Your task to perform on an android device: Open calendar and show me the second week of next month Image 0: 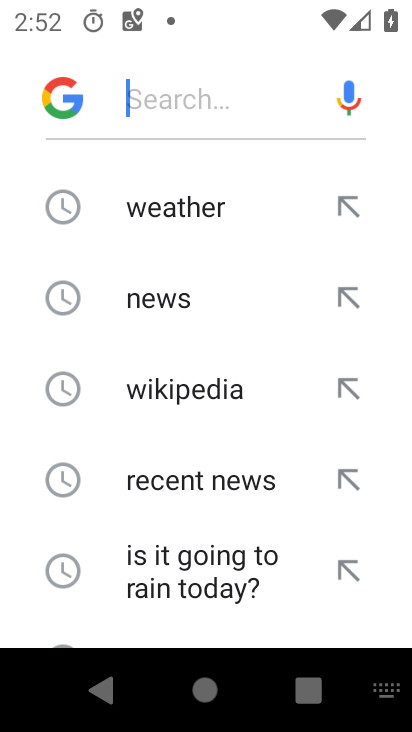
Step 0: press home button
Your task to perform on an android device: Open calendar and show me the second week of next month Image 1: 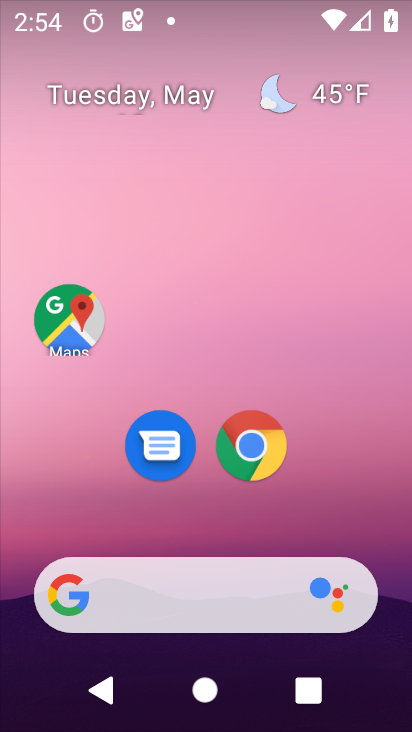
Step 1: drag from (224, 342) to (320, 13)
Your task to perform on an android device: Open calendar and show me the second week of next month Image 2: 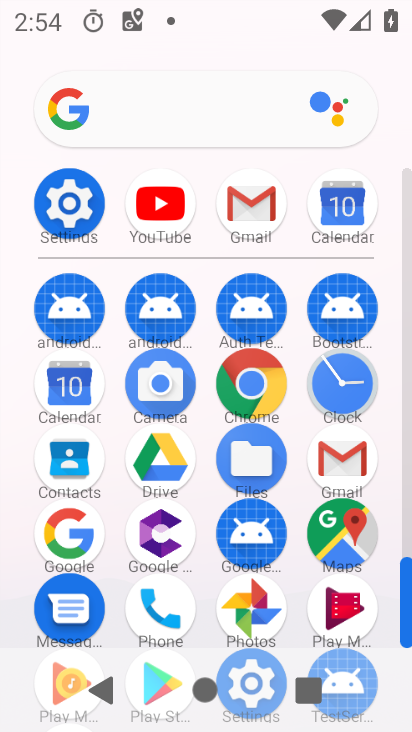
Step 2: click (74, 385)
Your task to perform on an android device: Open calendar and show me the second week of next month Image 3: 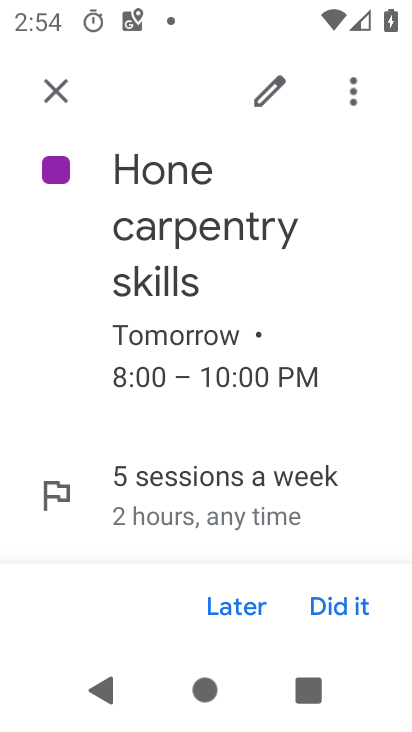
Step 3: click (79, 67)
Your task to perform on an android device: Open calendar and show me the second week of next month Image 4: 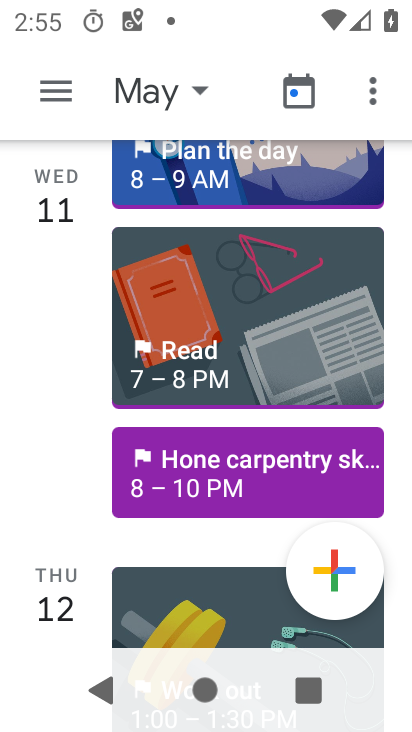
Step 4: click (192, 93)
Your task to perform on an android device: Open calendar and show me the second week of next month Image 5: 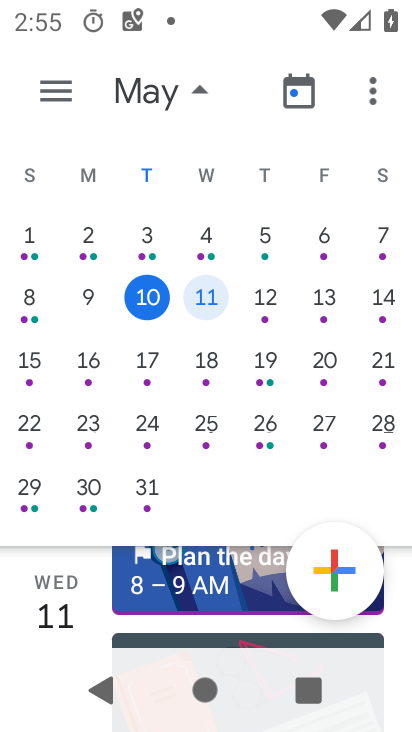
Step 5: drag from (387, 358) to (26, 367)
Your task to perform on an android device: Open calendar and show me the second week of next month Image 6: 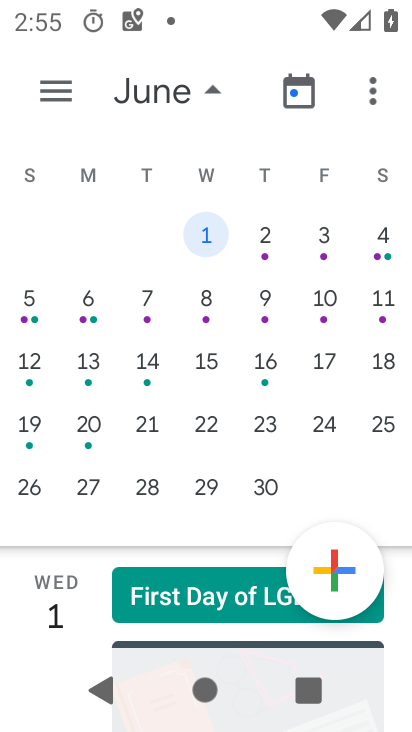
Step 6: click (92, 296)
Your task to perform on an android device: Open calendar and show me the second week of next month Image 7: 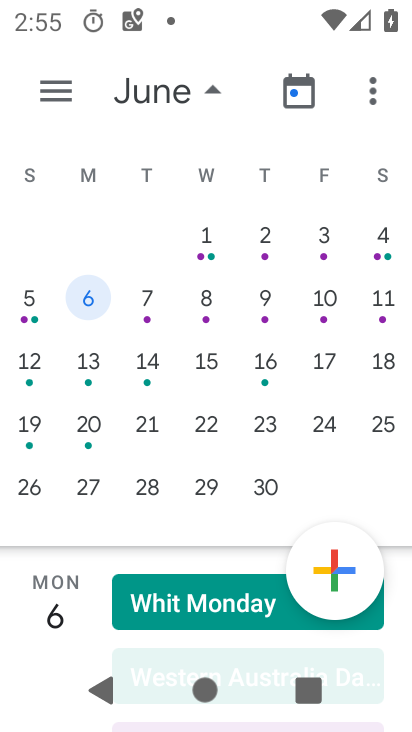
Step 7: task complete